Your task to perform on an android device: Is it going to rain today? Image 0: 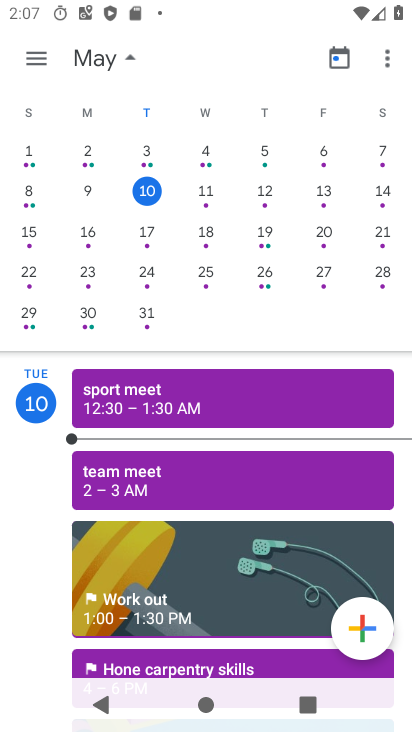
Step 0: press home button
Your task to perform on an android device: Is it going to rain today? Image 1: 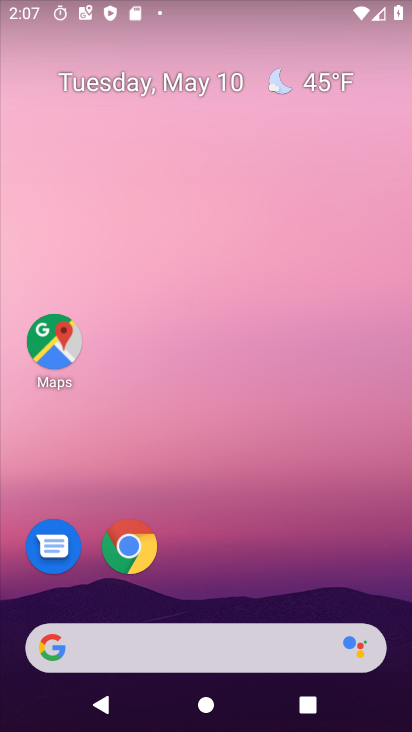
Step 1: click (349, 87)
Your task to perform on an android device: Is it going to rain today? Image 2: 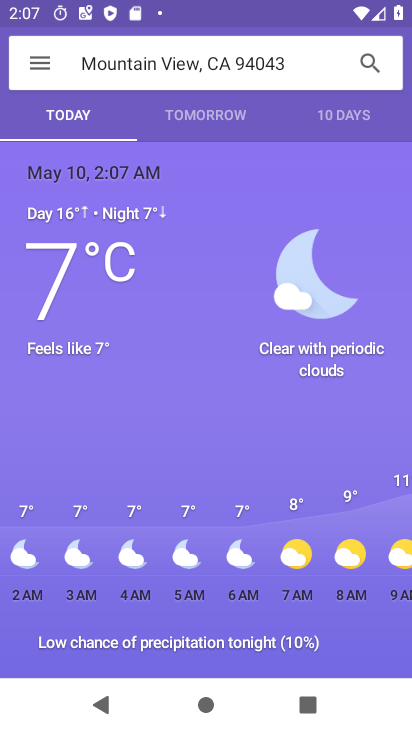
Step 2: task complete